Your task to perform on an android device: What's the weather today? Image 0: 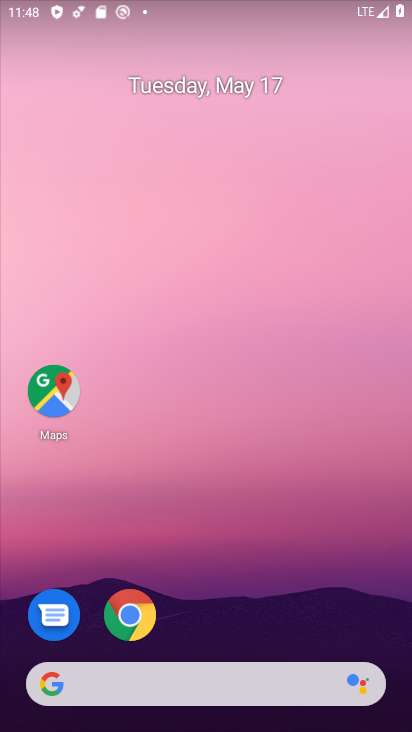
Step 0: drag from (324, 696) to (211, 242)
Your task to perform on an android device: What's the weather today? Image 1: 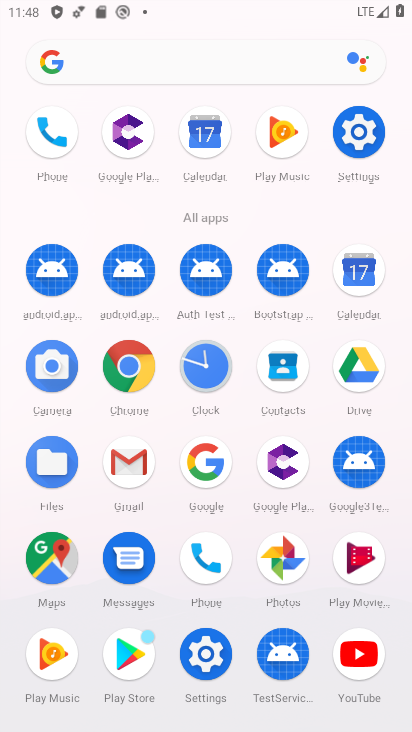
Step 1: click (145, 53)
Your task to perform on an android device: What's the weather today? Image 2: 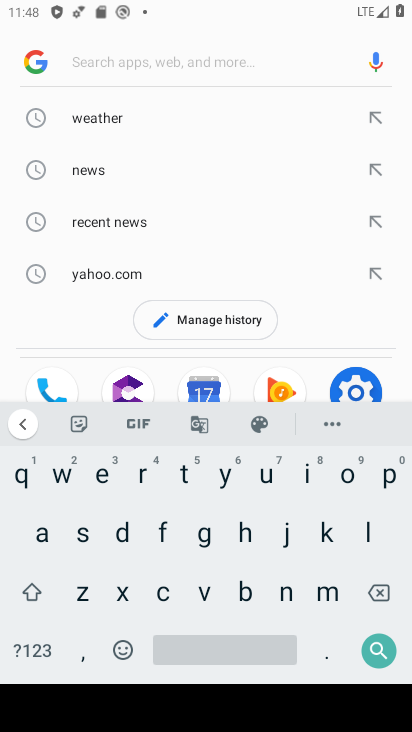
Step 2: click (127, 120)
Your task to perform on an android device: What's the weather today? Image 3: 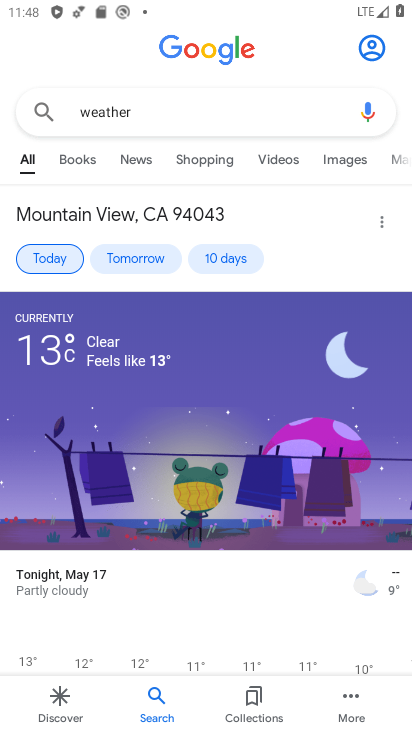
Step 3: click (127, 120)
Your task to perform on an android device: What's the weather today? Image 4: 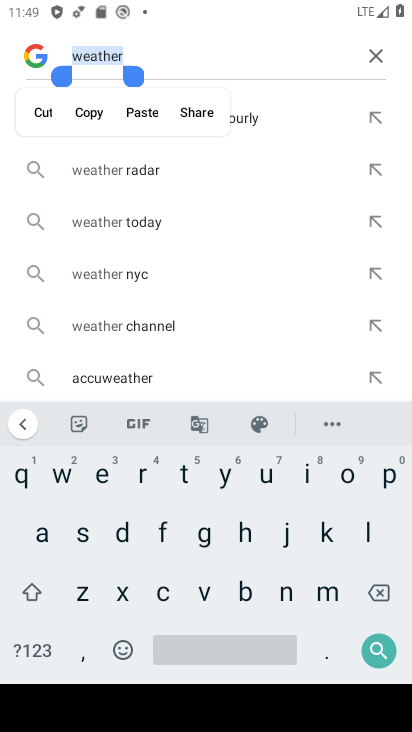
Step 4: click (122, 226)
Your task to perform on an android device: What's the weather today? Image 5: 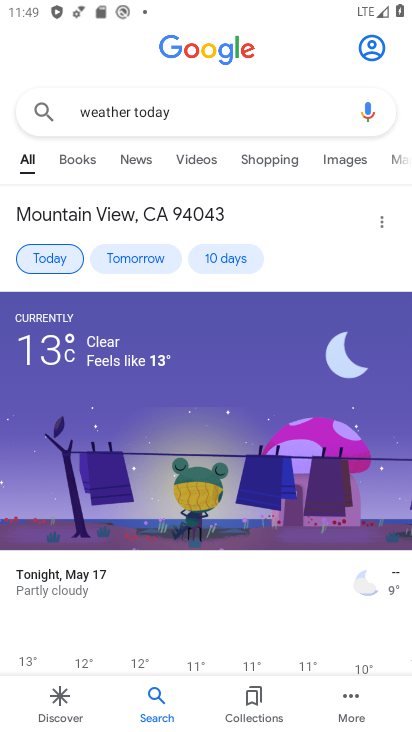
Step 5: task complete